Your task to perform on an android device: Go to network settings Image 0: 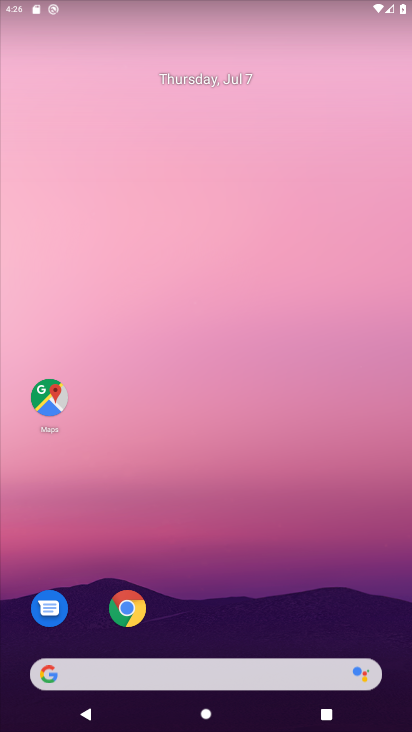
Step 0: drag from (308, 607) to (187, 101)
Your task to perform on an android device: Go to network settings Image 1: 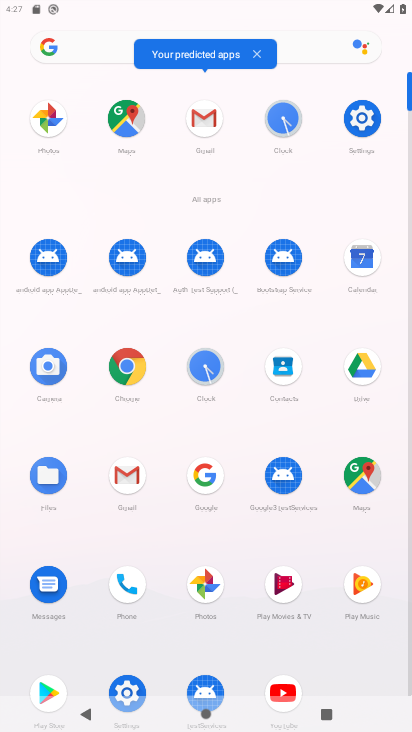
Step 1: click (366, 119)
Your task to perform on an android device: Go to network settings Image 2: 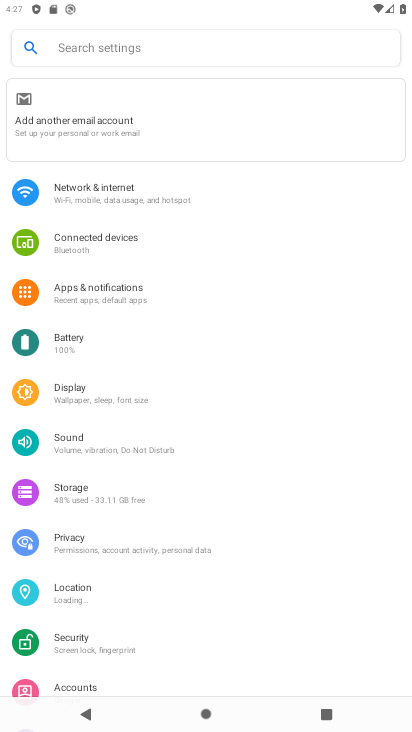
Step 2: click (203, 204)
Your task to perform on an android device: Go to network settings Image 3: 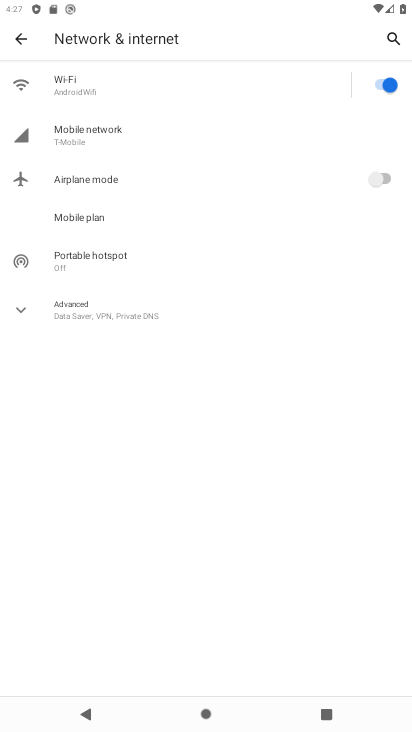
Step 3: task complete